Your task to perform on an android device: When is my next appointment? Image 0: 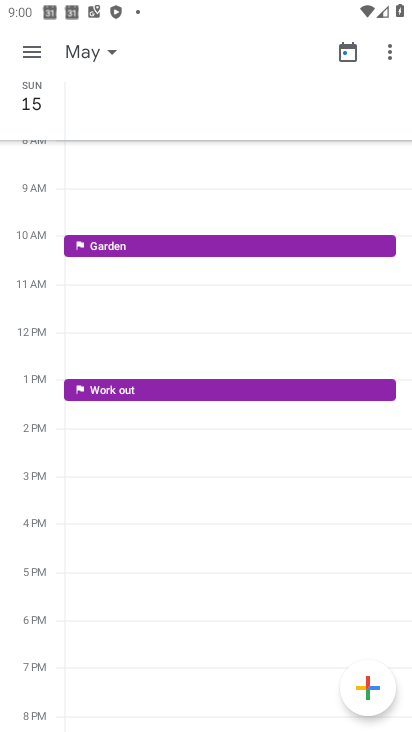
Step 0: press home button
Your task to perform on an android device: When is my next appointment? Image 1: 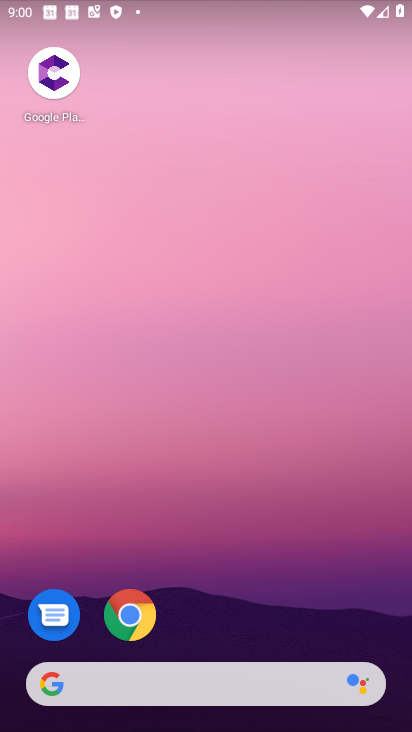
Step 1: drag from (6, 706) to (291, 237)
Your task to perform on an android device: When is my next appointment? Image 2: 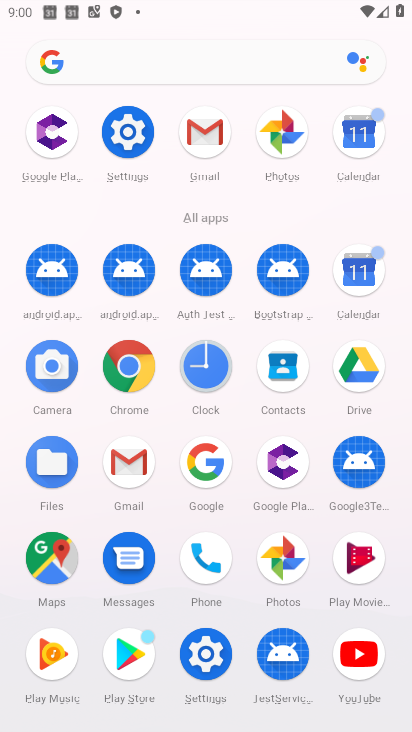
Step 2: click (358, 264)
Your task to perform on an android device: When is my next appointment? Image 3: 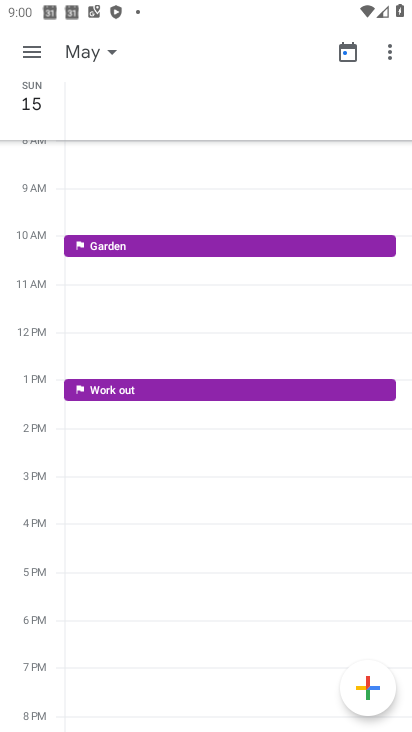
Step 3: click (75, 42)
Your task to perform on an android device: When is my next appointment? Image 4: 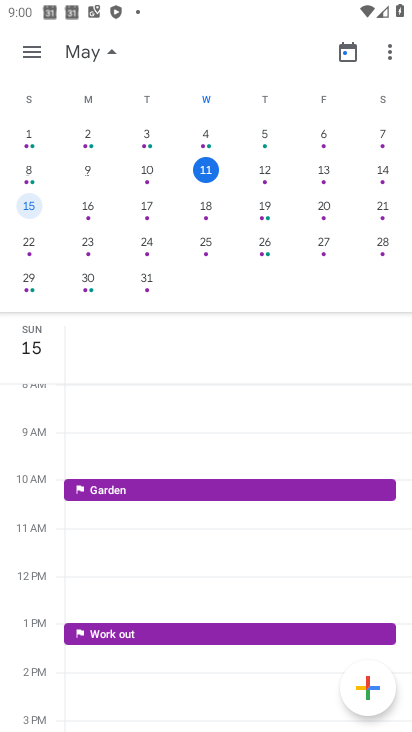
Step 4: click (23, 47)
Your task to perform on an android device: When is my next appointment? Image 5: 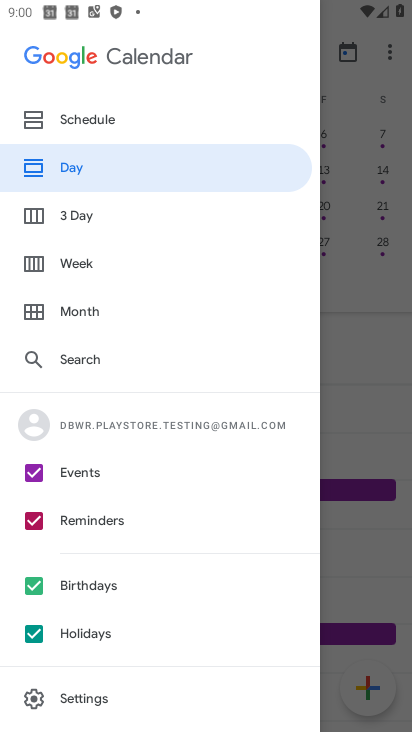
Step 5: click (117, 524)
Your task to perform on an android device: When is my next appointment? Image 6: 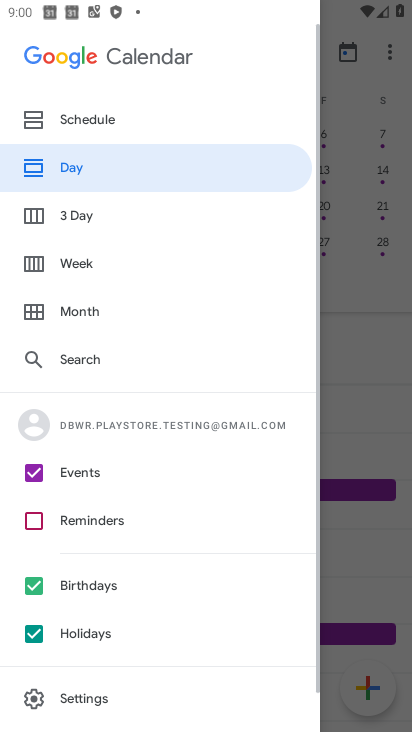
Step 6: click (117, 521)
Your task to perform on an android device: When is my next appointment? Image 7: 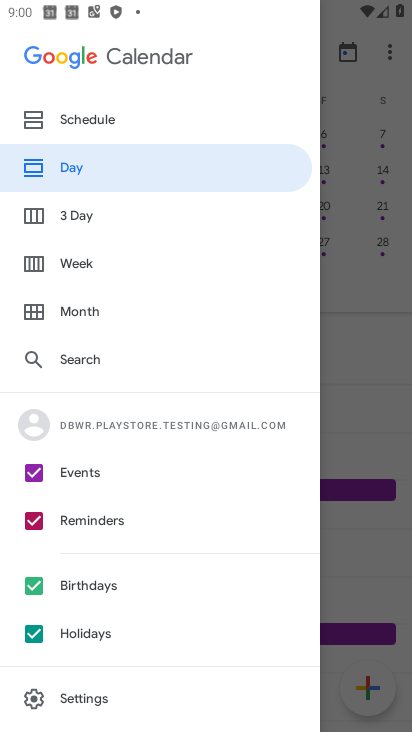
Step 7: task complete